Your task to perform on an android device: allow notifications from all sites in the chrome app Image 0: 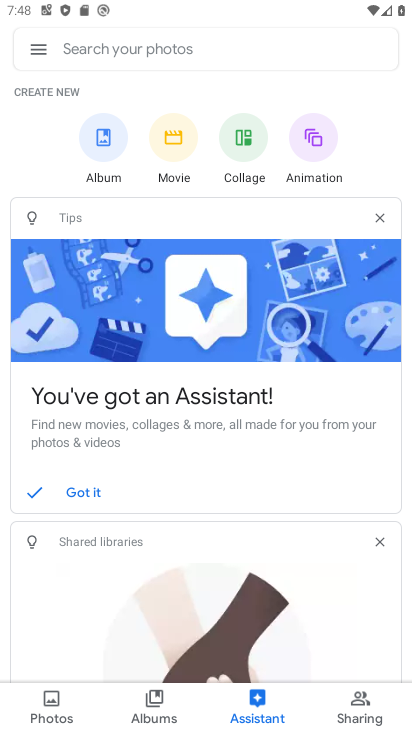
Step 0: press home button
Your task to perform on an android device: allow notifications from all sites in the chrome app Image 1: 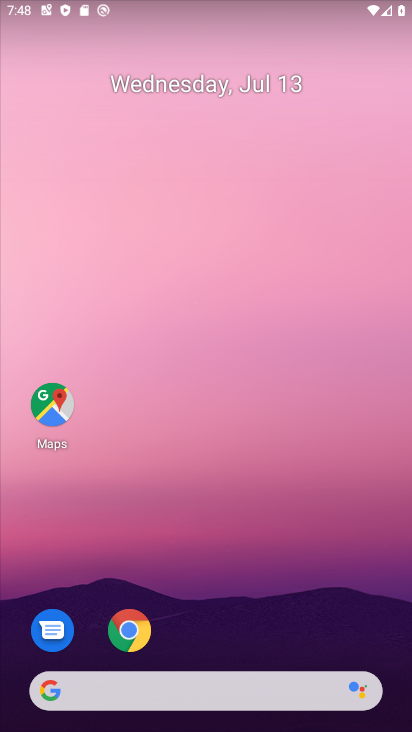
Step 1: drag from (310, 642) to (360, 261)
Your task to perform on an android device: allow notifications from all sites in the chrome app Image 2: 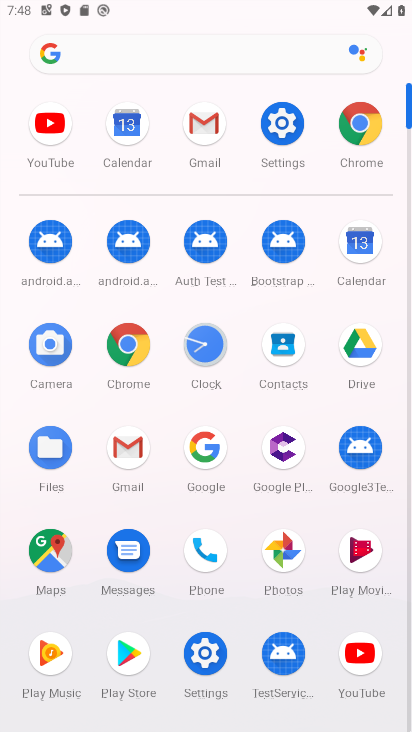
Step 2: click (129, 347)
Your task to perform on an android device: allow notifications from all sites in the chrome app Image 3: 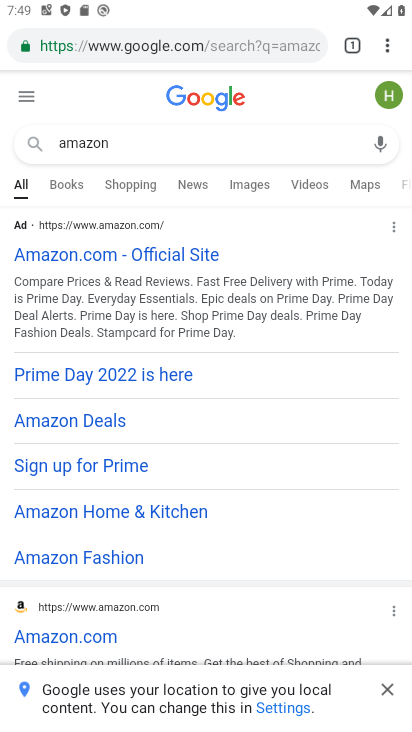
Step 3: click (385, 49)
Your task to perform on an android device: allow notifications from all sites in the chrome app Image 4: 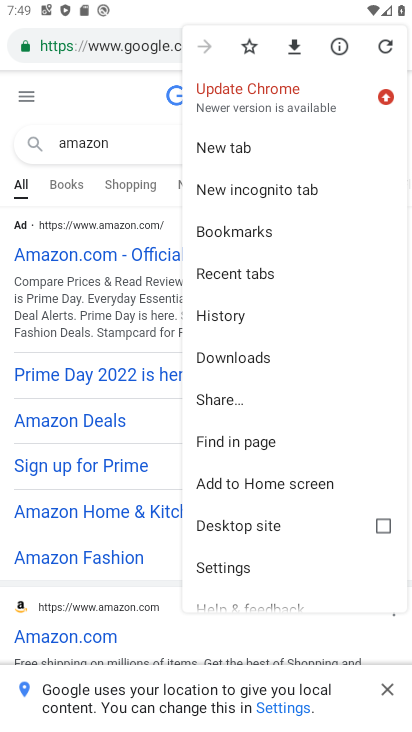
Step 4: click (263, 570)
Your task to perform on an android device: allow notifications from all sites in the chrome app Image 5: 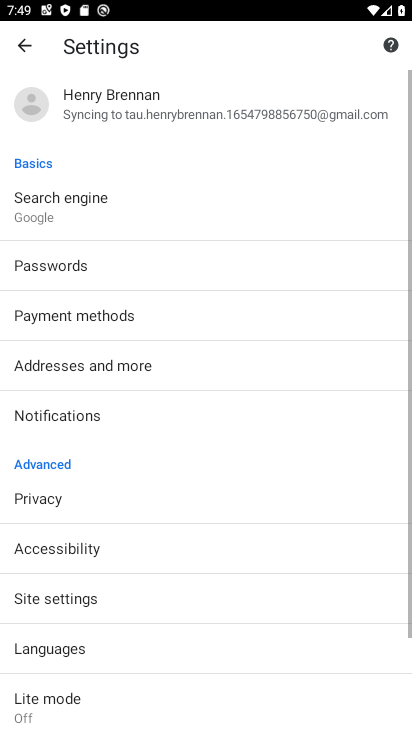
Step 5: drag from (263, 570) to (263, 511)
Your task to perform on an android device: allow notifications from all sites in the chrome app Image 6: 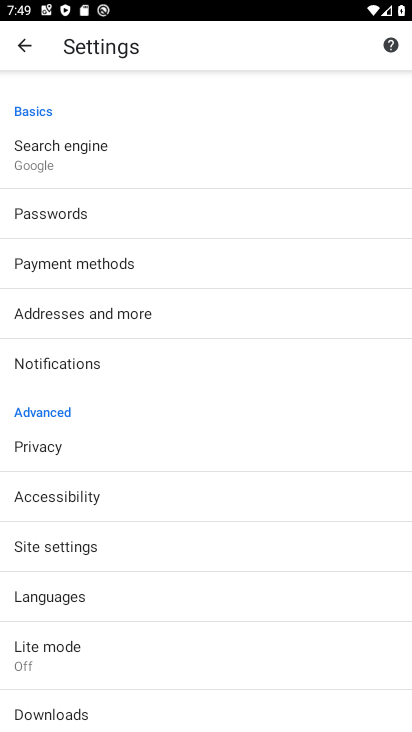
Step 6: drag from (273, 587) to (275, 524)
Your task to perform on an android device: allow notifications from all sites in the chrome app Image 7: 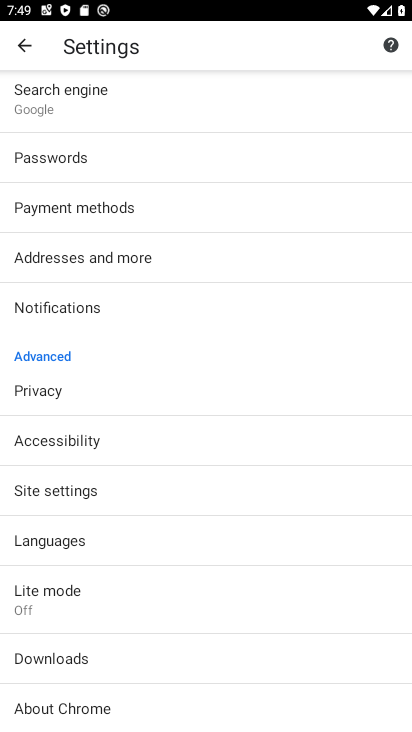
Step 7: click (242, 500)
Your task to perform on an android device: allow notifications from all sites in the chrome app Image 8: 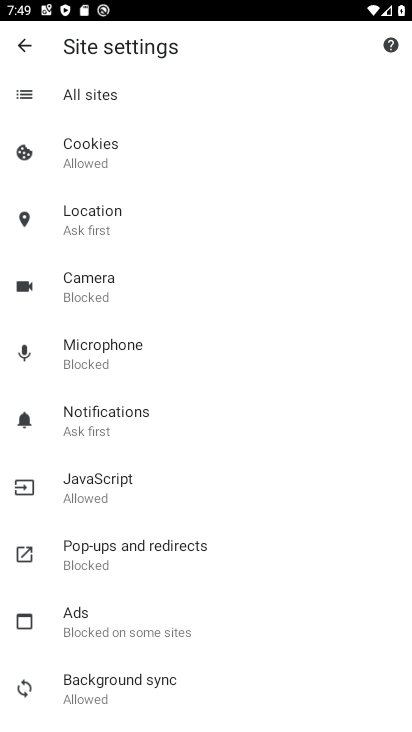
Step 8: drag from (309, 577) to (314, 505)
Your task to perform on an android device: allow notifications from all sites in the chrome app Image 9: 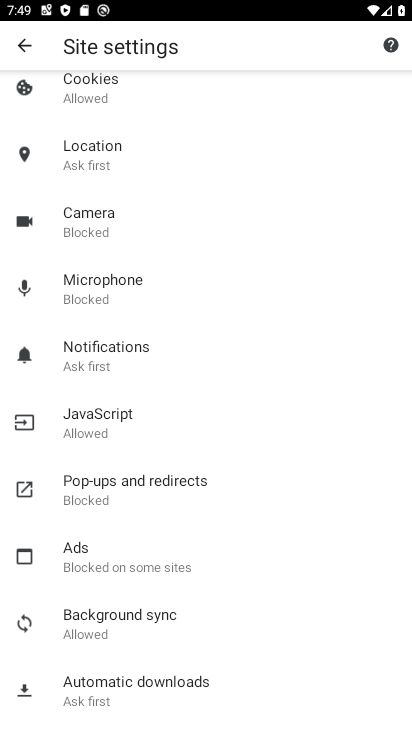
Step 9: drag from (319, 633) to (332, 532)
Your task to perform on an android device: allow notifications from all sites in the chrome app Image 10: 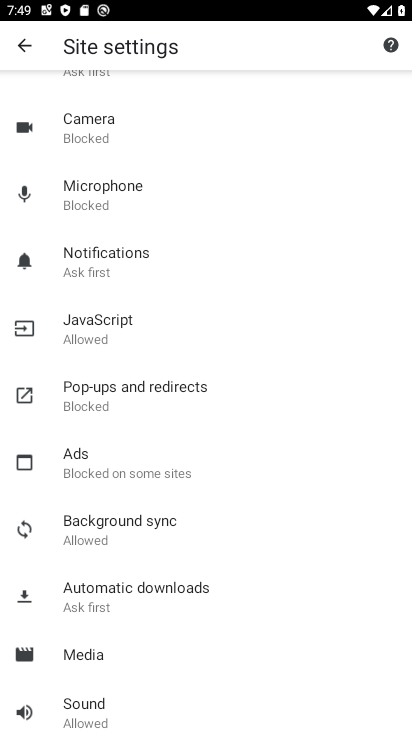
Step 10: drag from (343, 569) to (359, 265)
Your task to perform on an android device: allow notifications from all sites in the chrome app Image 11: 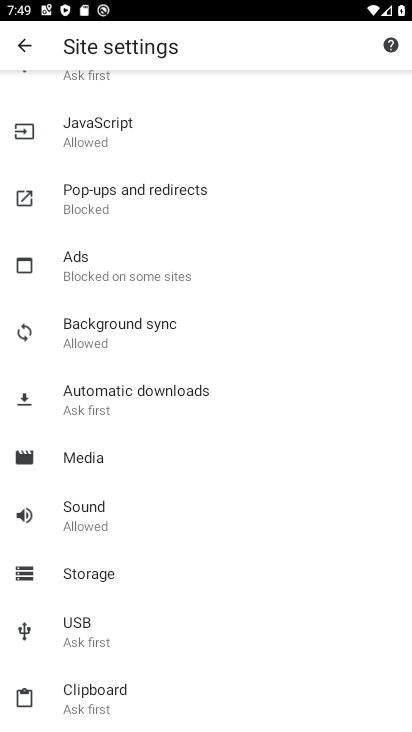
Step 11: drag from (330, 586) to (357, 319)
Your task to perform on an android device: allow notifications from all sites in the chrome app Image 12: 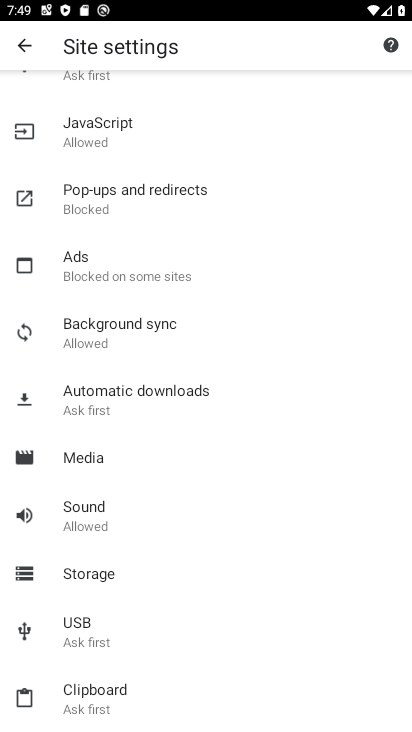
Step 12: drag from (347, 294) to (347, 380)
Your task to perform on an android device: allow notifications from all sites in the chrome app Image 13: 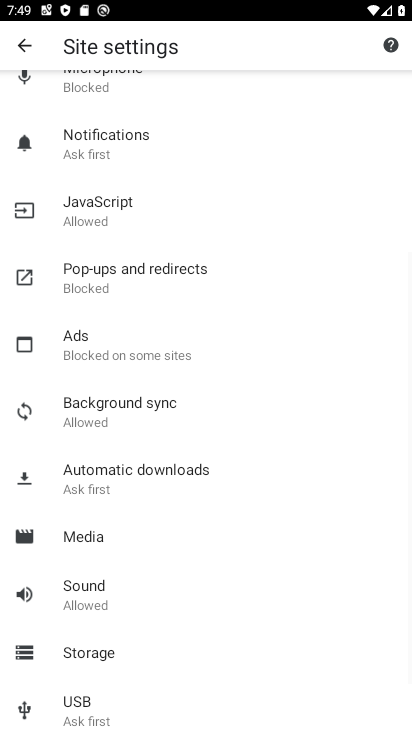
Step 13: drag from (333, 267) to (331, 413)
Your task to perform on an android device: allow notifications from all sites in the chrome app Image 14: 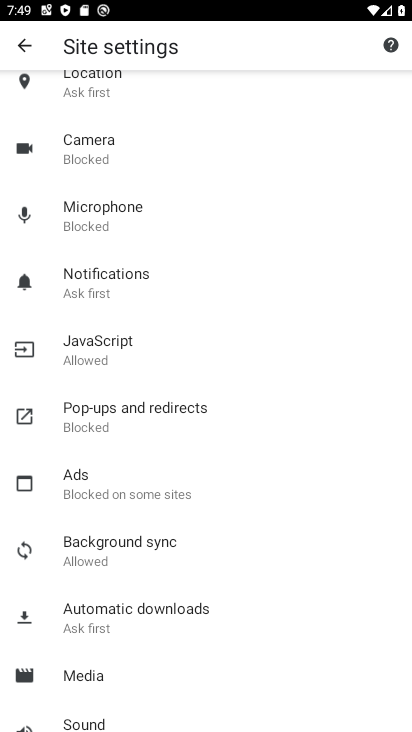
Step 14: drag from (304, 239) to (300, 452)
Your task to perform on an android device: allow notifications from all sites in the chrome app Image 15: 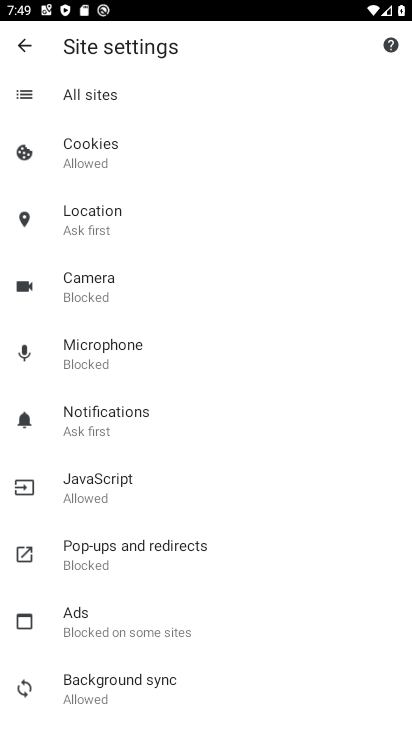
Step 15: click (171, 420)
Your task to perform on an android device: allow notifications from all sites in the chrome app Image 16: 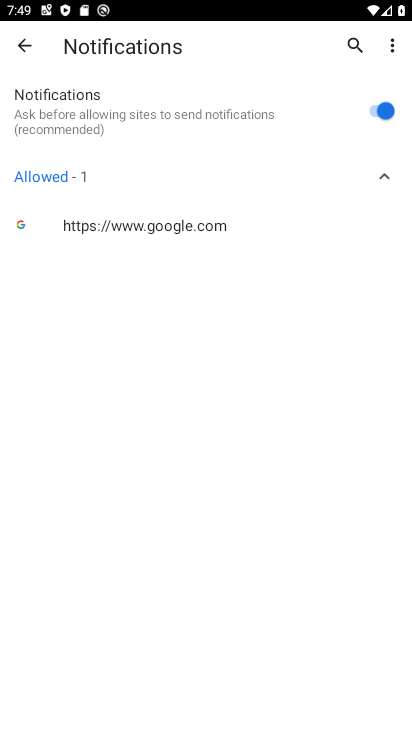
Step 16: task complete